Your task to perform on an android device: change the clock display to digital Image 0: 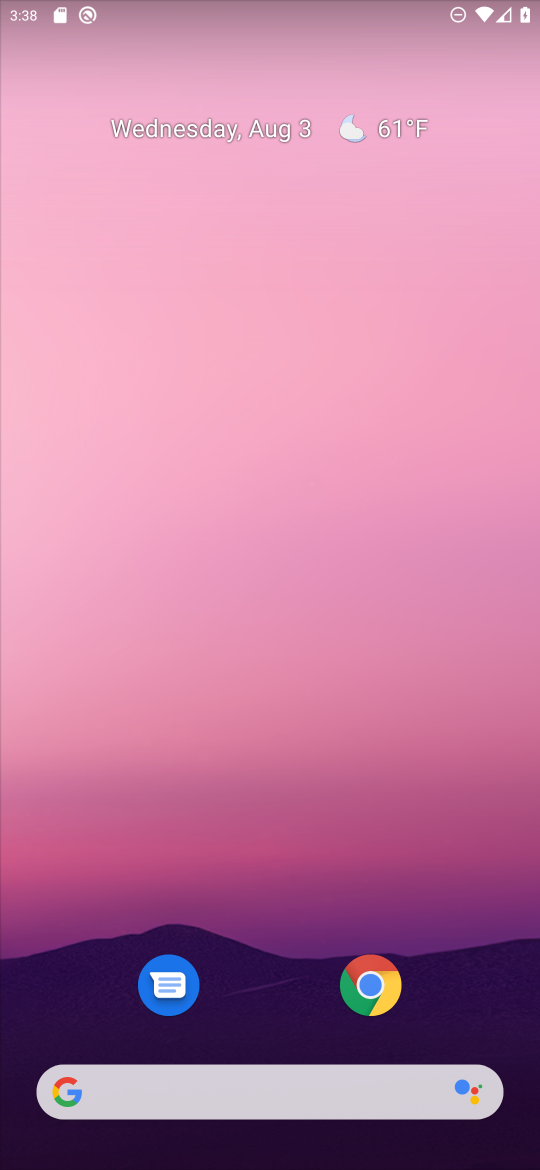
Step 0: drag from (239, 998) to (218, 285)
Your task to perform on an android device: change the clock display to digital Image 1: 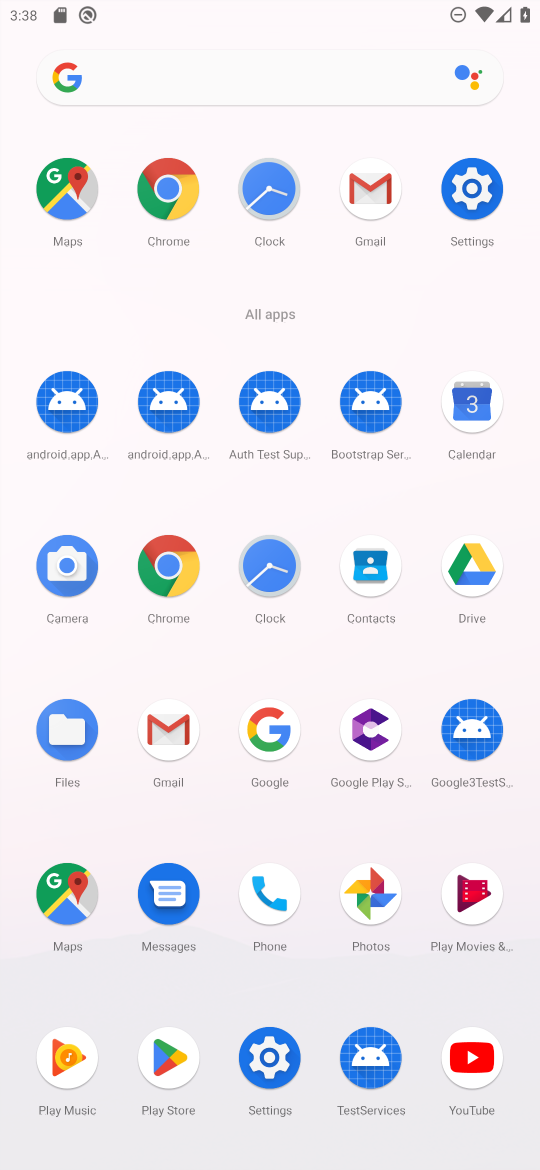
Step 1: click (266, 558)
Your task to perform on an android device: change the clock display to digital Image 2: 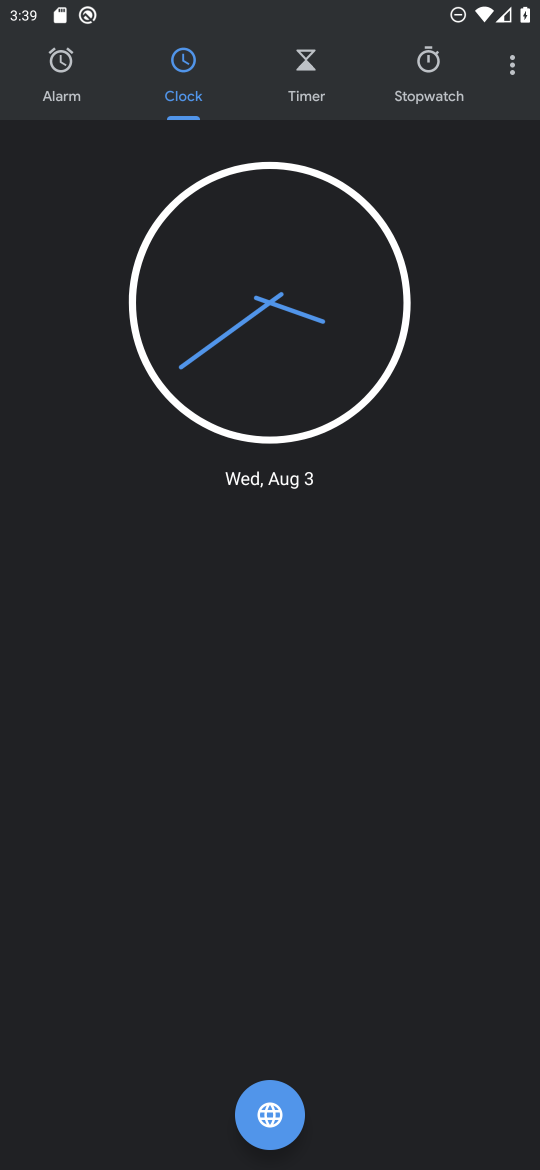
Step 2: click (508, 72)
Your task to perform on an android device: change the clock display to digital Image 3: 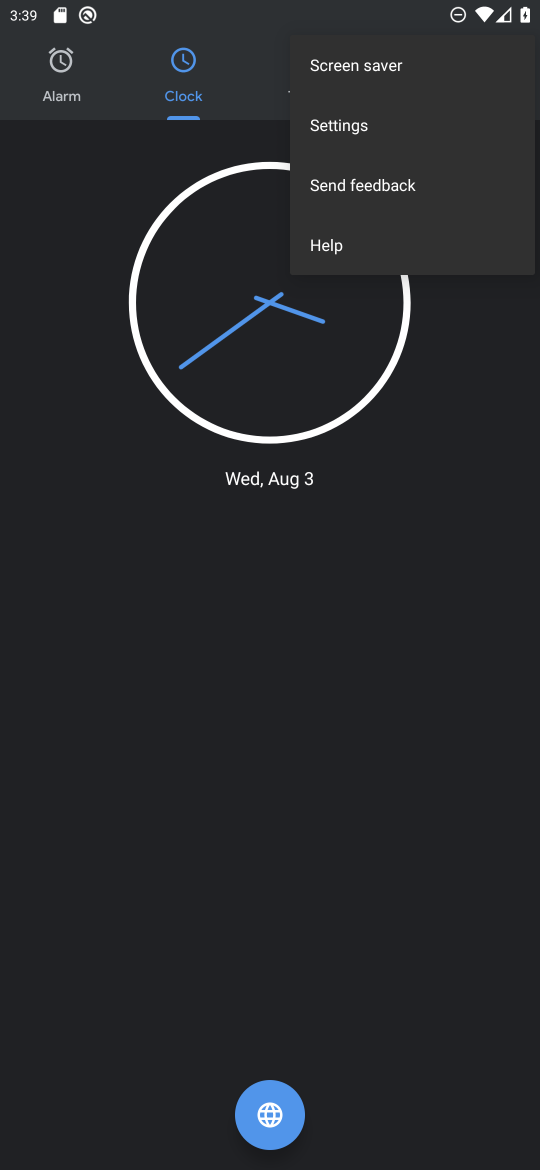
Step 3: click (365, 136)
Your task to perform on an android device: change the clock display to digital Image 4: 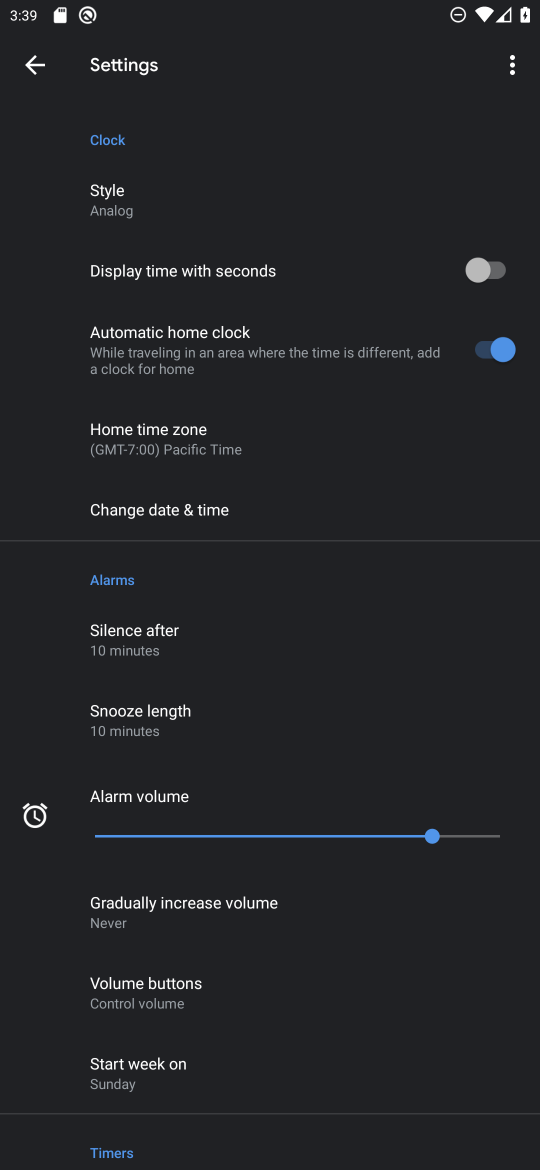
Step 4: click (123, 214)
Your task to perform on an android device: change the clock display to digital Image 5: 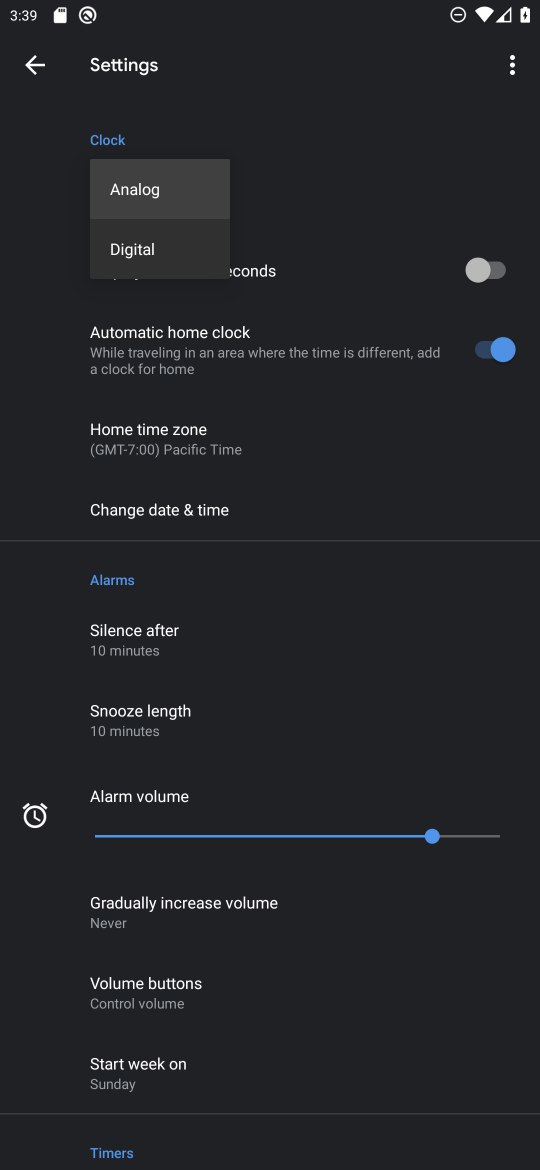
Step 5: click (133, 256)
Your task to perform on an android device: change the clock display to digital Image 6: 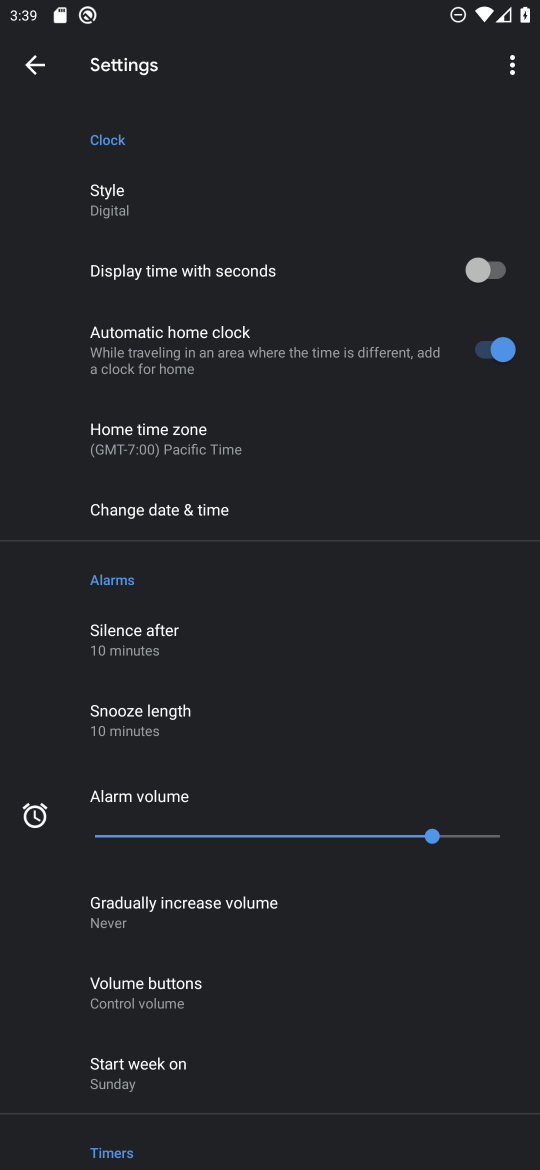
Step 6: task complete